Your task to perform on an android device: Open the web browser Image 0: 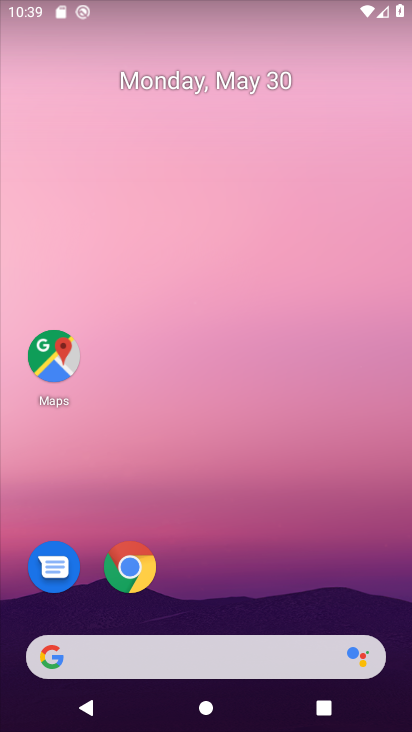
Step 0: click (126, 567)
Your task to perform on an android device: Open the web browser Image 1: 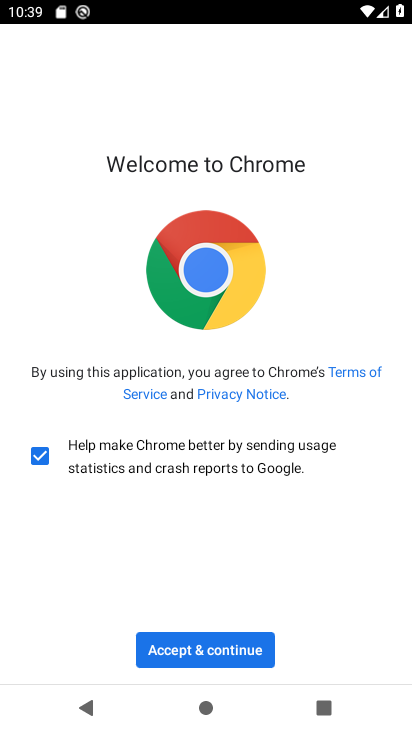
Step 1: click (178, 660)
Your task to perform on an android device: Open the web browser Image 2: 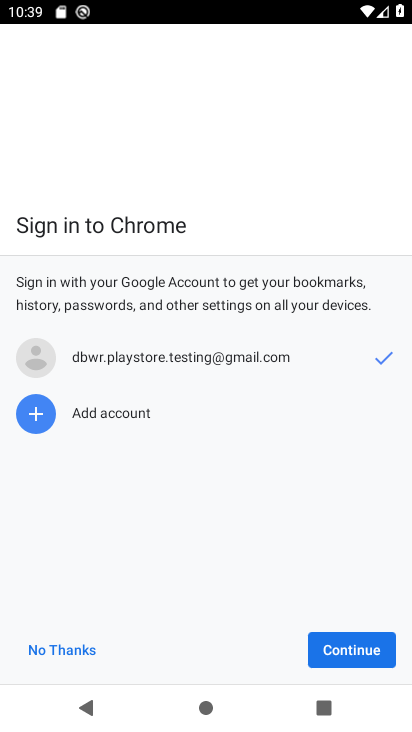
Step 2: click (341, 650)
Your task to perform on an android device: Open the web browser Image 3: 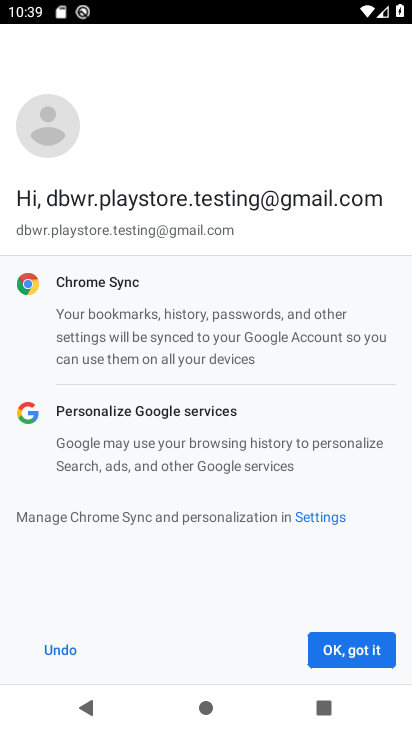
Step 3: click (341, 650)
Your task to perform on an android device: Open the web browser Image 4: 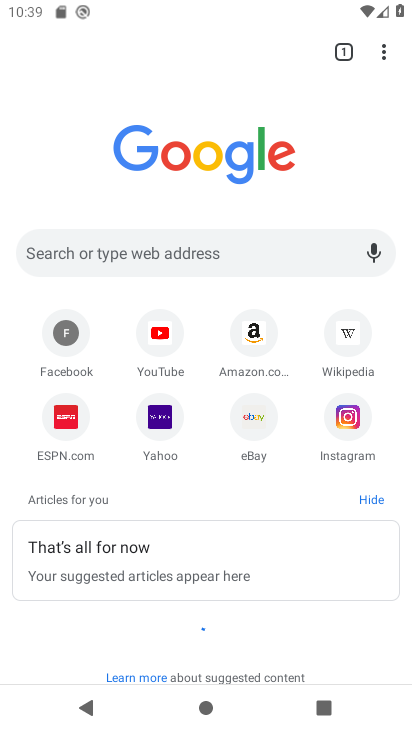
Step 4: task complete